Your task to perform on an android device: Search for Italian restaurants on Maps Image 0: 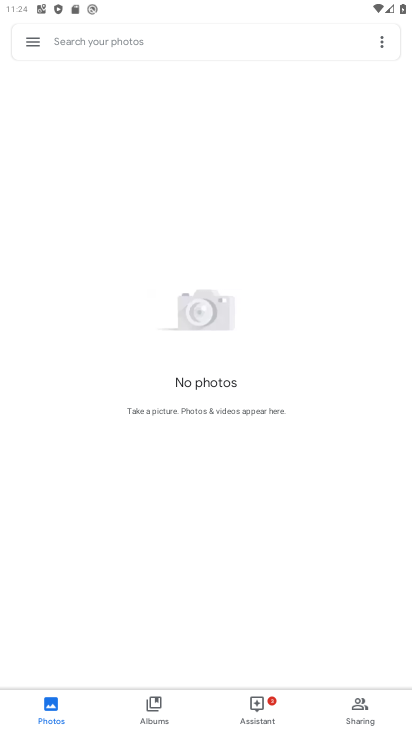
Step 0: press home button
Your task to perform on an android device: Search for Italian restaurants on Maps Image 1: 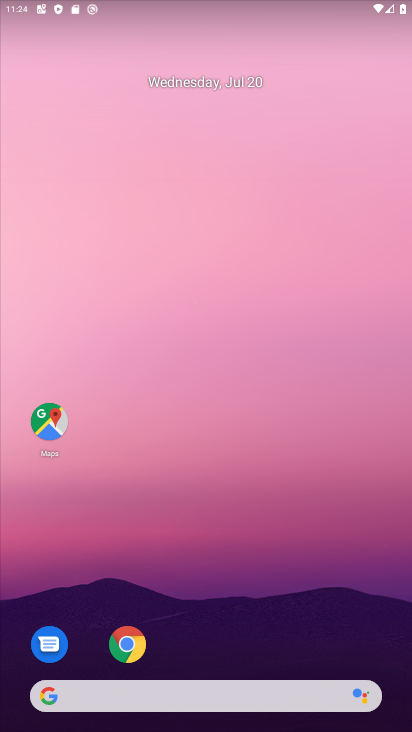
Step 1: drag from (157, 656) to (186, 229)
Your task to perform on an android device: Search for Italian restaurants on Maps Image 2: 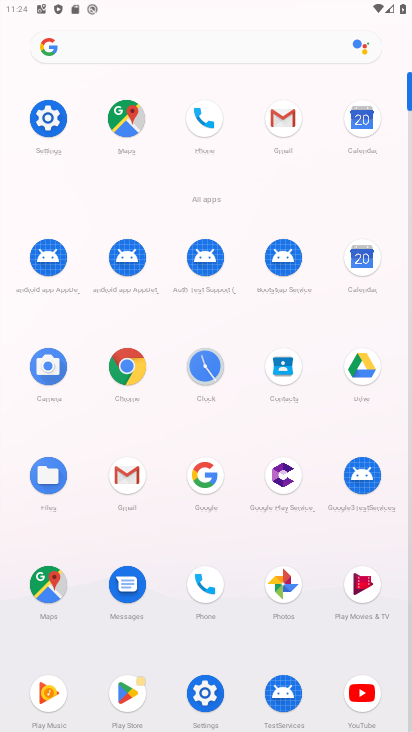
Step 2: click (126, 116)
Your task to perform on an android device: Search for Italian restaurants on Maps Image 3: 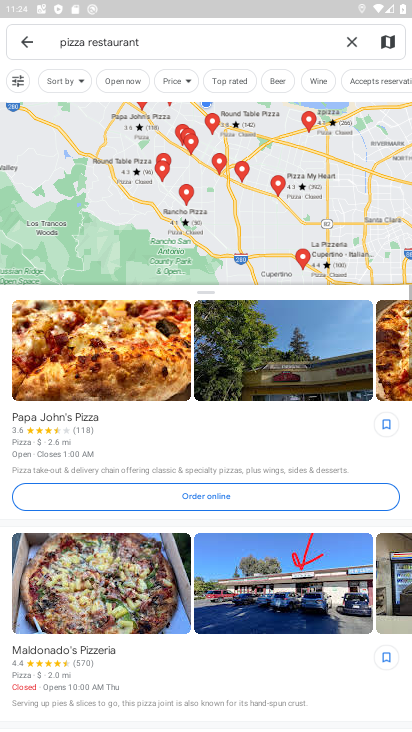
Step 3: click (347, 40)
Your task to perform on an android device: Search for Italian restaurants on Maps Image 4: 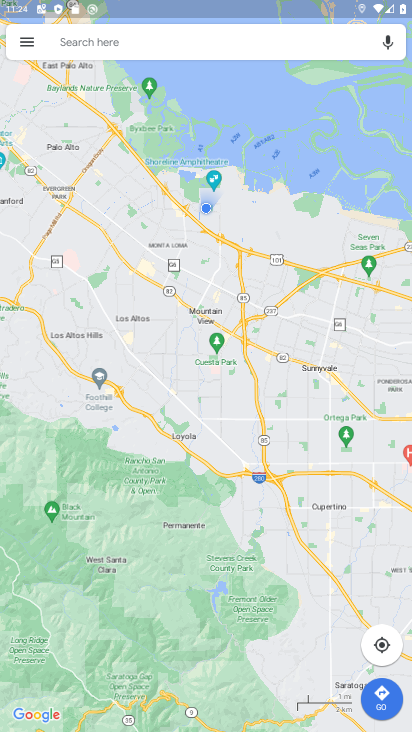
Step 4: click (189, 46)
Your task to perform on an android device: Search for Italian restaurants on Maps Image 5: 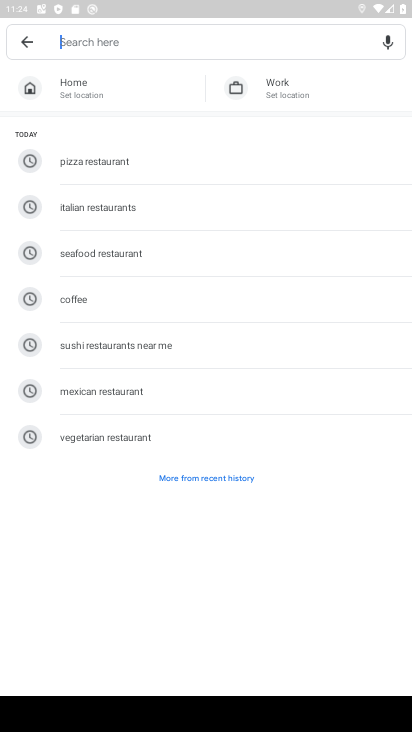
Step 5: click (119, 209)
Your task to perform on an android device: Search for Italian restaurants on Maps Image 6: 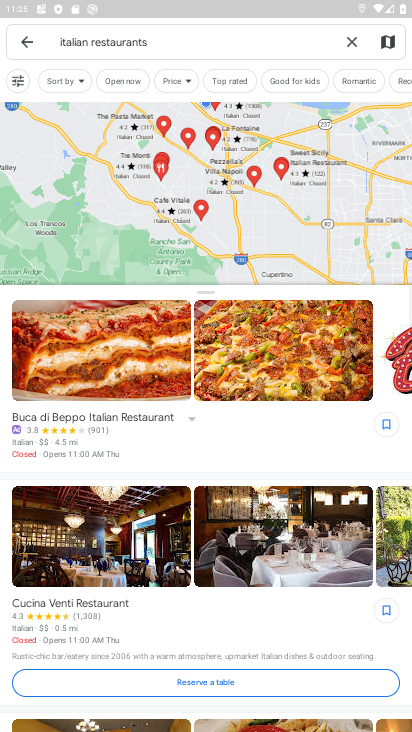
Step 6: task complete